Your task to perform on an android device: turn off wifi Image 0: 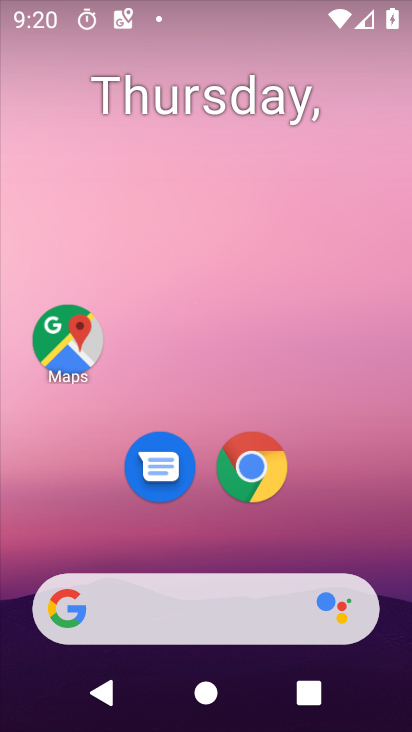
Step 0: drag from (354, 550) to (315, 153)
Your task to perform on an android device: turn off wifi Image 1: 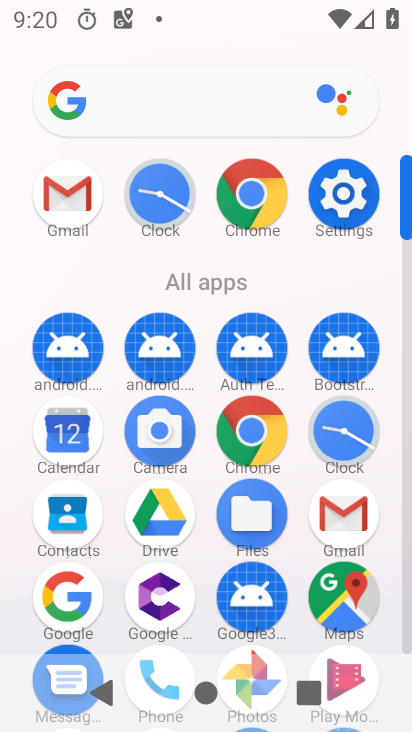
Step 1: click (325, 194)
Your task to perform on an android device: turn off wifi Image 2: 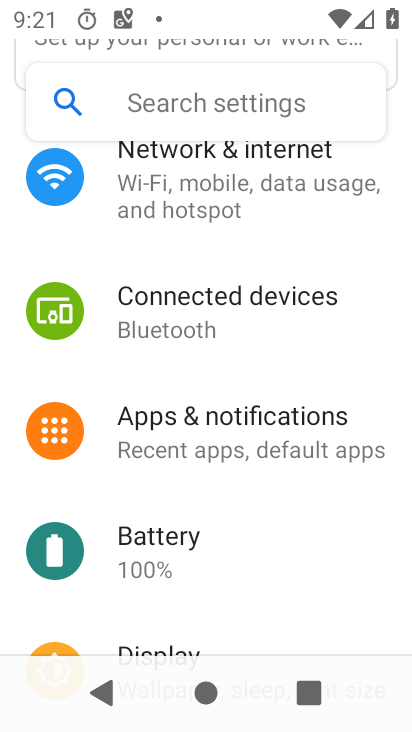
Step 2: click (199, 172)
Your task to perform on an android device: turn off wifi Image 3: 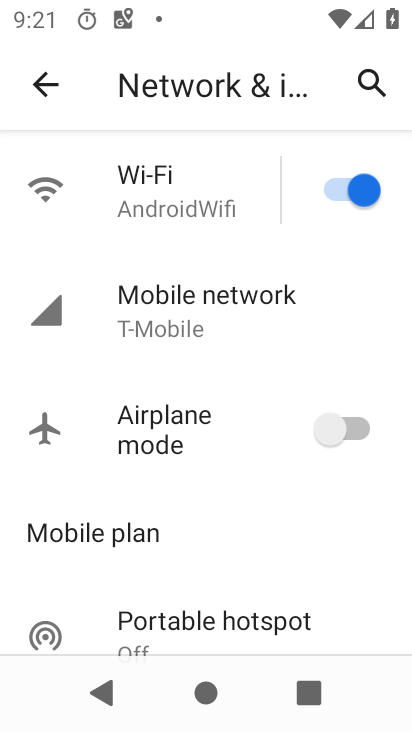
Step 3: click (322, 188)
Your task to perform on an android device: turn off wifi Image 4: 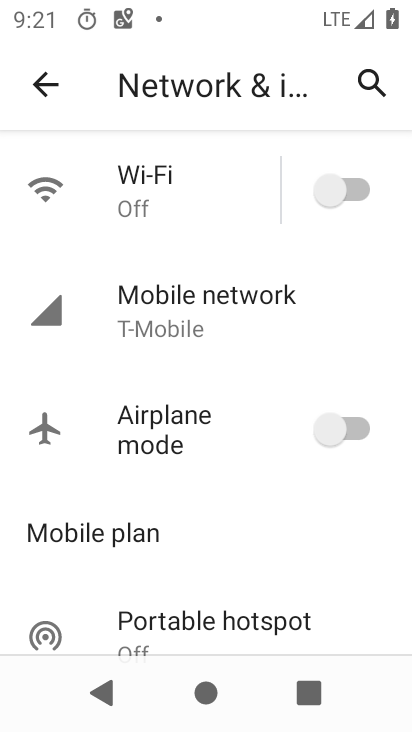
Step 4: task complete